Your task to perform on an android device: Open Reddit.com Image 0: 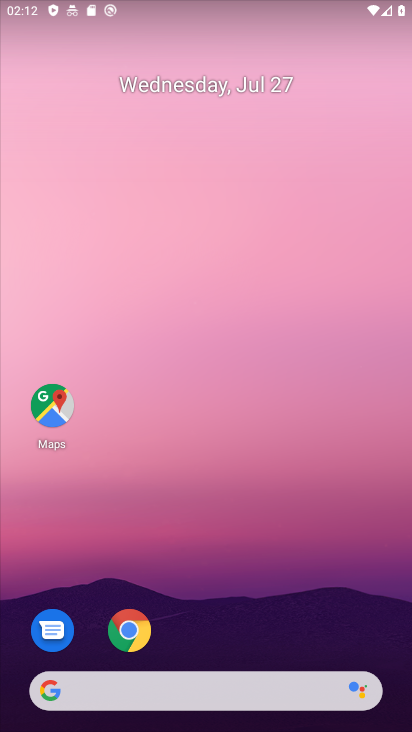
Step 0: drag from (295, 643) to (289, 169)
Your task to perform on an android device: Open Reddit.com Image 1: 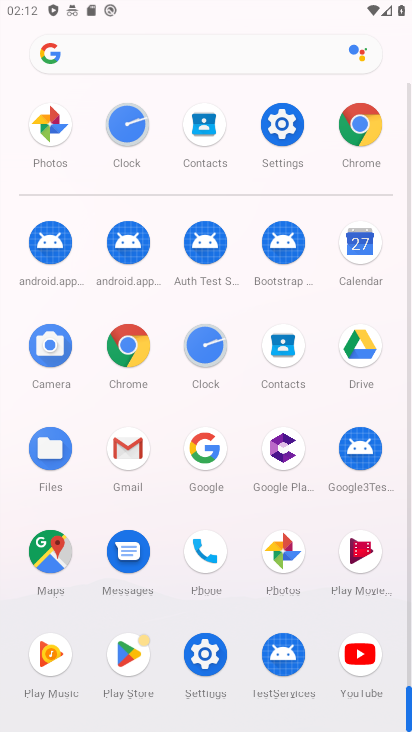
Step 1: click (355, 127)
Your task to perform on an android device: Open Reddit.com Image 2: 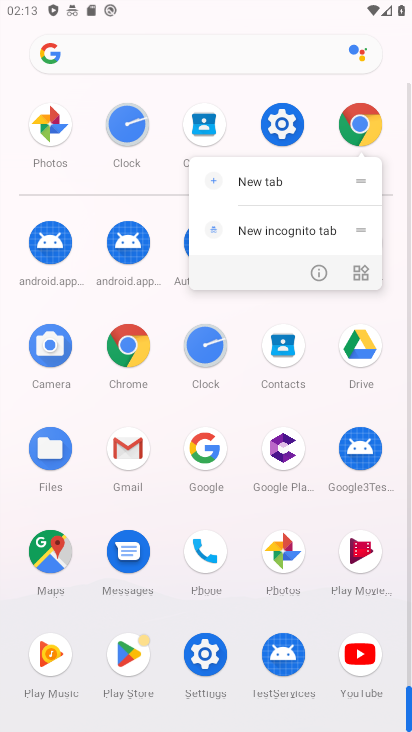
Step 2: click (365, 134)
Your task to perform on an android device: Open Reddit.com Image 3: 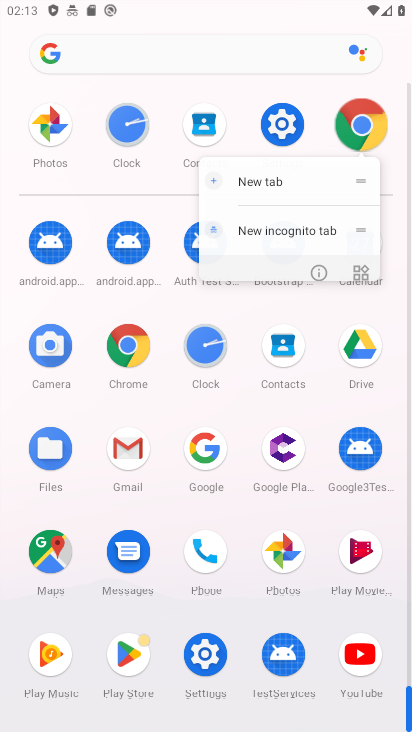
Step 3: click (378, 138)
Your task to perform on an android device: Open Reddit.com Image 4: 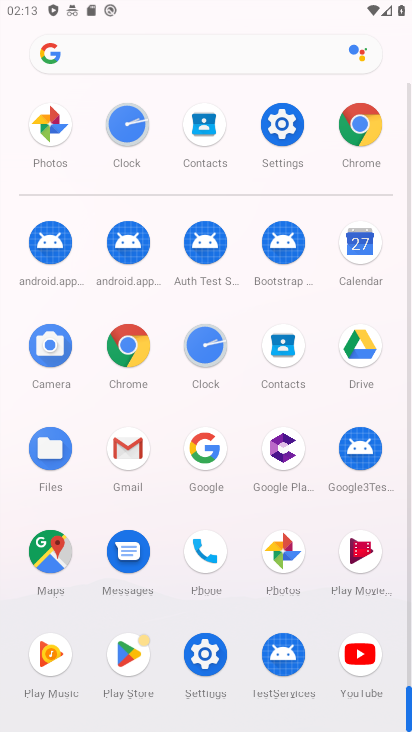
Step 4: click (373, 134)
Your task to perform on an android device: Open Reddit.com Image 5: 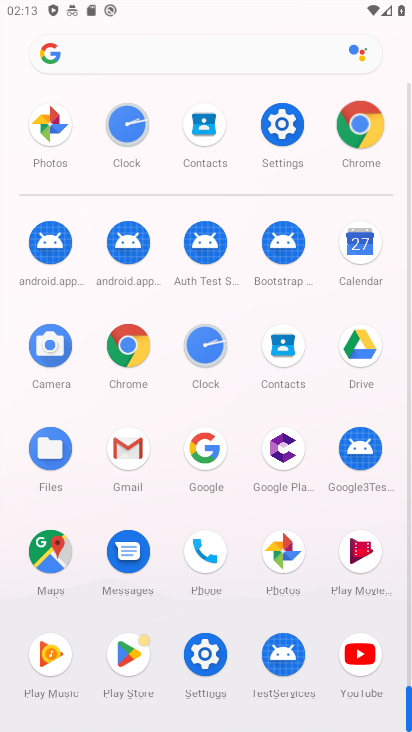
Step 5: click (372, 133)
Your task to perform on an android device: Open Reddit.com Image 6: 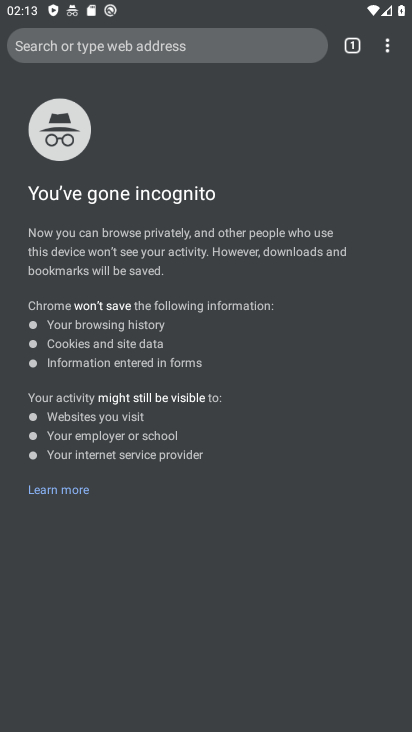
Step 6: click (382, 39)
Your task to perform on an android device: Open Reddit.com Image 7: 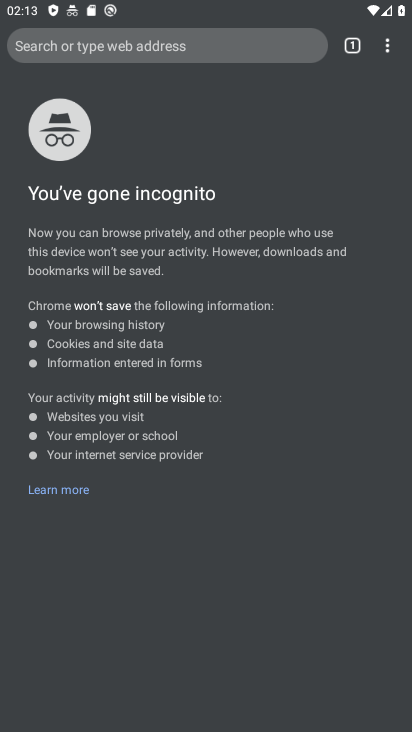
Step 7: drag from (384, 52) to (199, 89)
Your task to perform on an android device: Open Reddit.com Image 8: 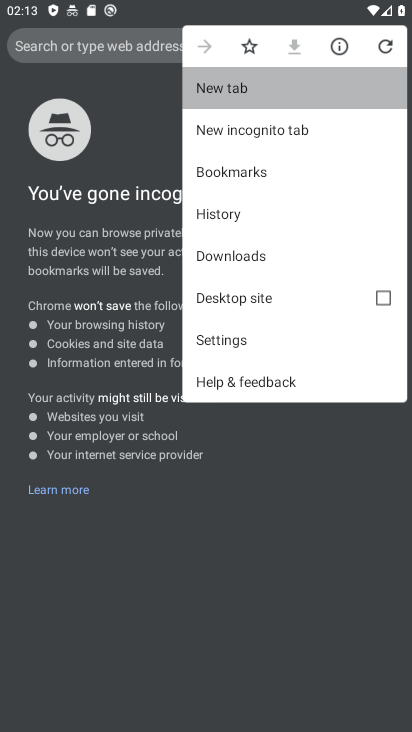
Step 8: click (203, 88)
Your task to perform on an android device: Open Reddit.com Image 9: 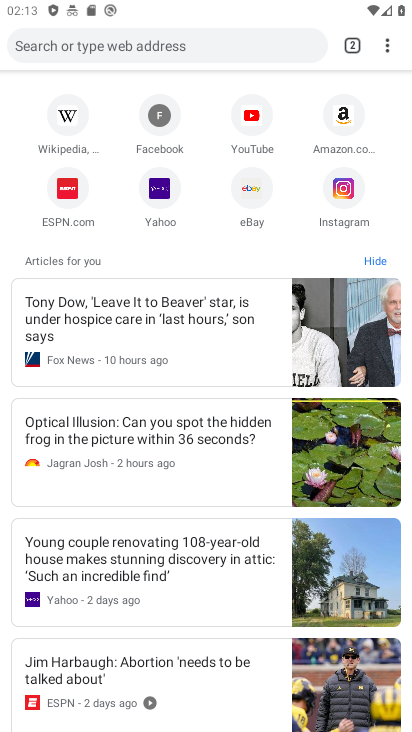
Step 9: click (80, 48)
Your task to perform on an android device: Open Reddit.com Image 10: 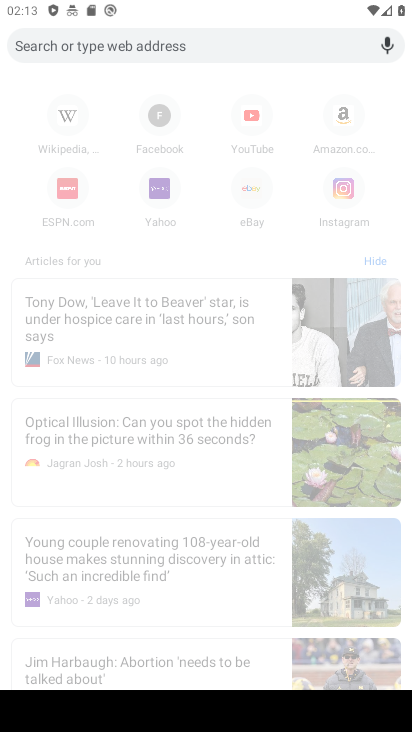
Step 10: type "reddit.com"
Your task to perform on an android device: Open Reddit.com Image 11: 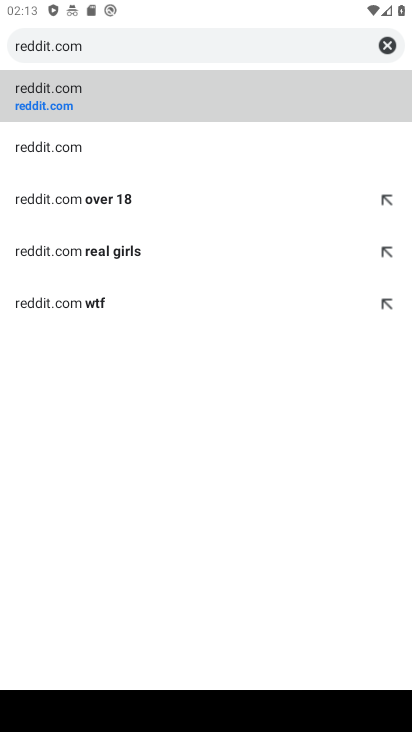
Step 11: click (50, 104)
Your task to perform on an android device: Open Reddit.com Image 12: 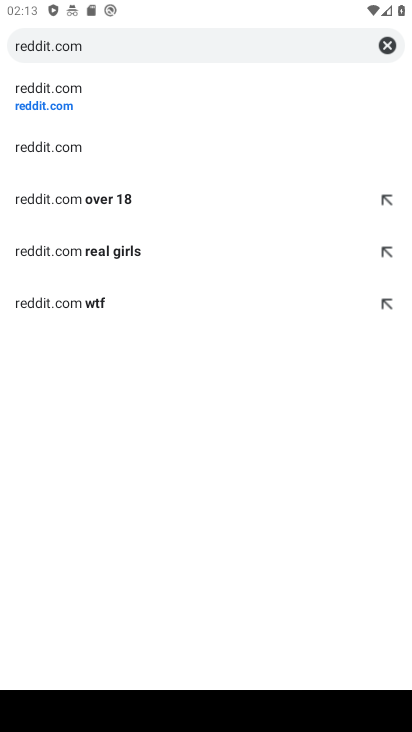
Step 12: task complete